Your task to perform on an android device: toggle show notifications on the lock screen Image 0: 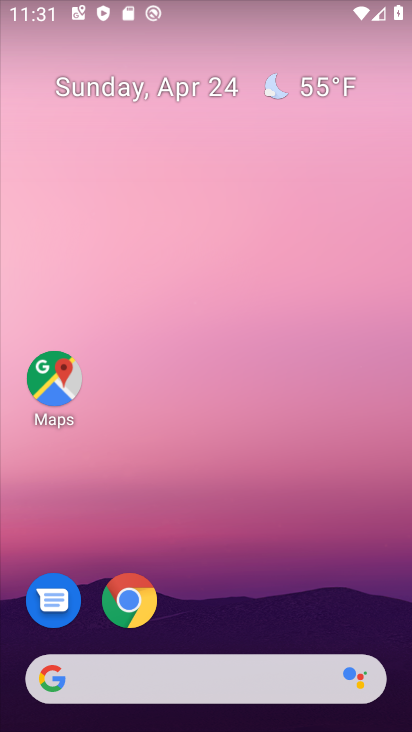
Step 0: drag from (224, 608) to (257, 110)
Your task to perform on an android device: toggle show notifications on the lock screen Image 1: 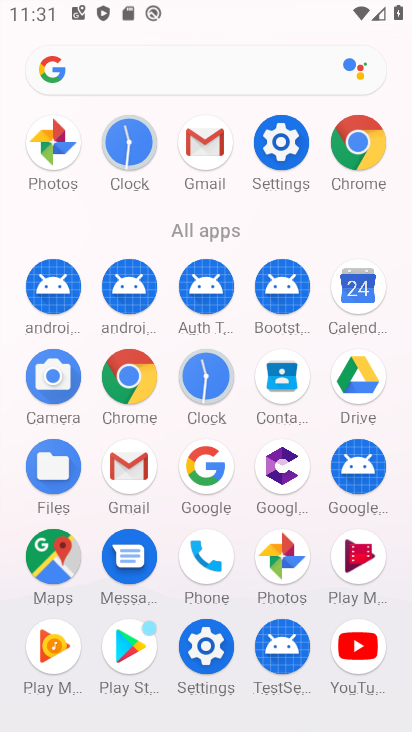
Step 1: click (281, 196)
Your task to perform on an android device: toggle show notifications on the lock screen Image 2: 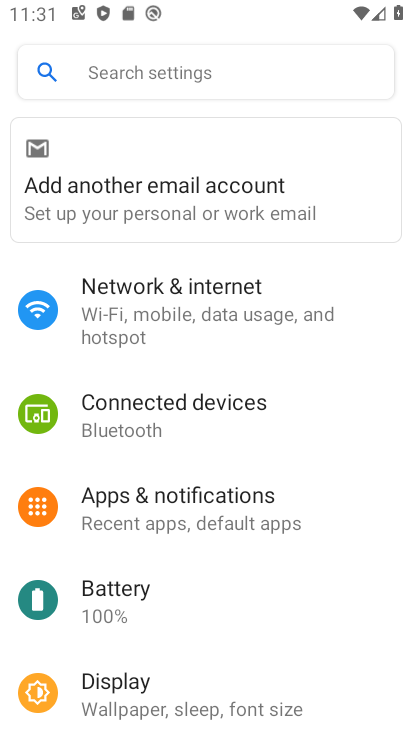
Step 2: click (110, 524)
Your task to perform on an android device: toggle show notifications on the lock screen Image 3: 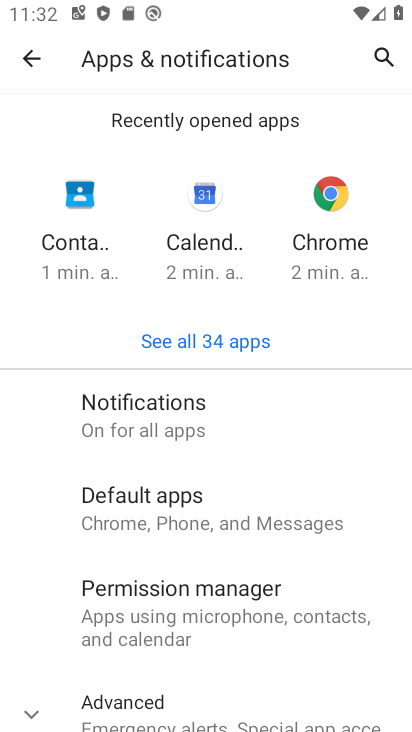
Step 3: click (179, 422)
Your task to perform on an android device: toggle show notifications on the lock screen Image 4: 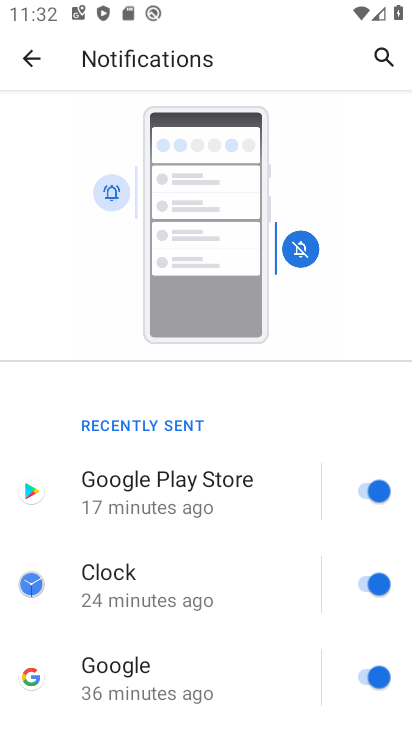
Step 4: drag from (167, 639) to (222, 158)
Your task to perform on an android device: toggle show notifications on the lock screen Image 5: 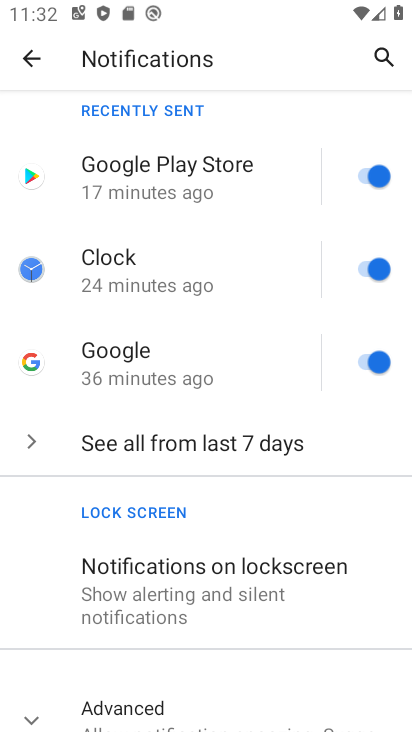
Step 5: drag from (137, 538) to (218, 159)
Your task to perform on an android device: toggle show notifications on the lock screen Image 6: 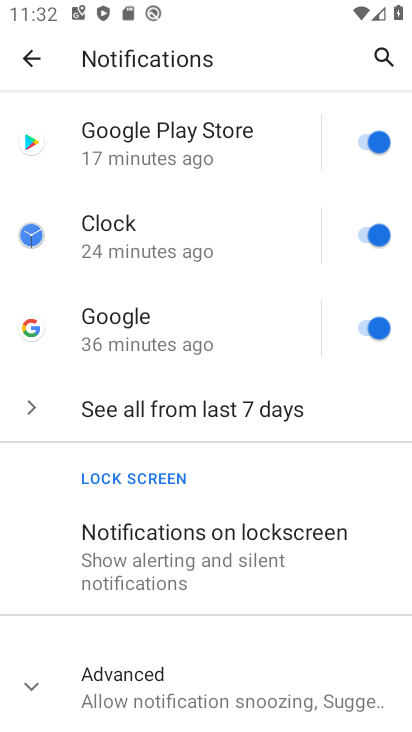
Step 6: click (190, 554)
Your task to perform on an android device: toggle show notifications on the lock screen Image 7: 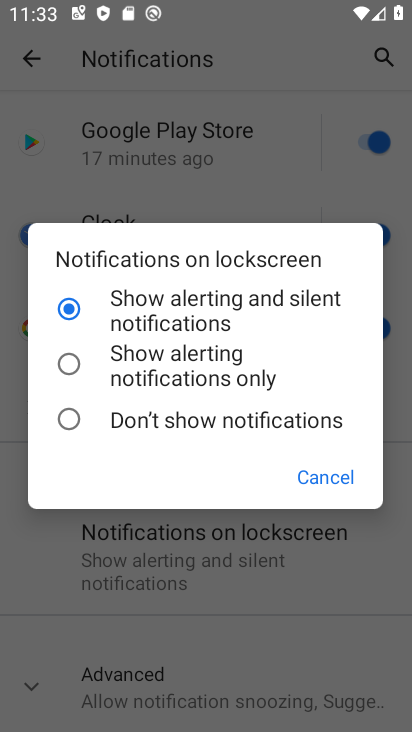
Step 7: click (129, 370)
Your task to perform on an android device: toggle show notifications on the lock screen Image 8: 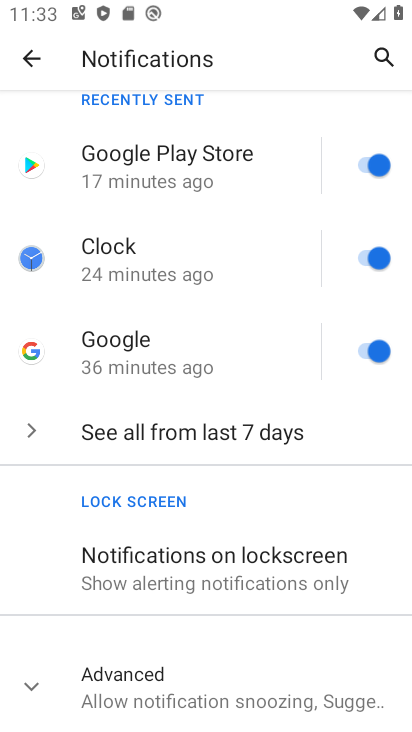
Step 8: click (235, 572)
Your task to perform on an android device: toggle show notifications on the lock screen Image 9: 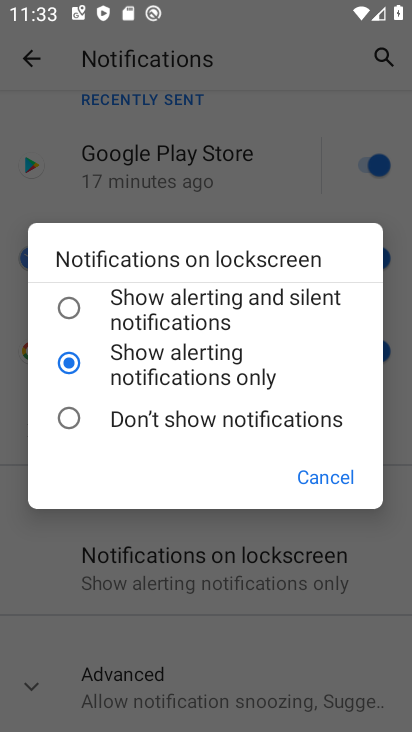
Step 9: task complete